Your task to perform on an android device: check storage Image 0: 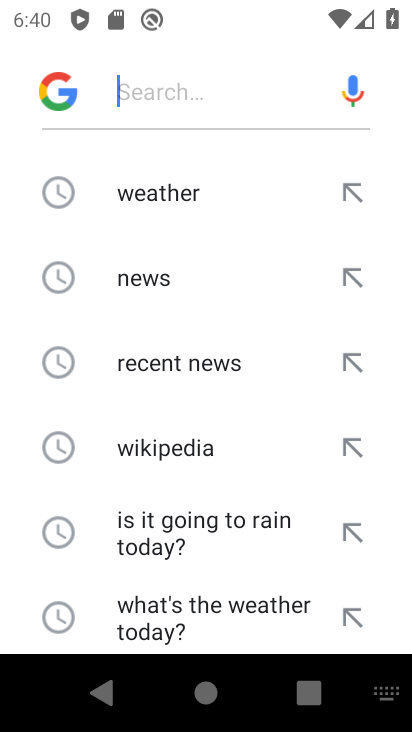
Step 0: press home button
Your task to perform on an android device: check storage Image 1: 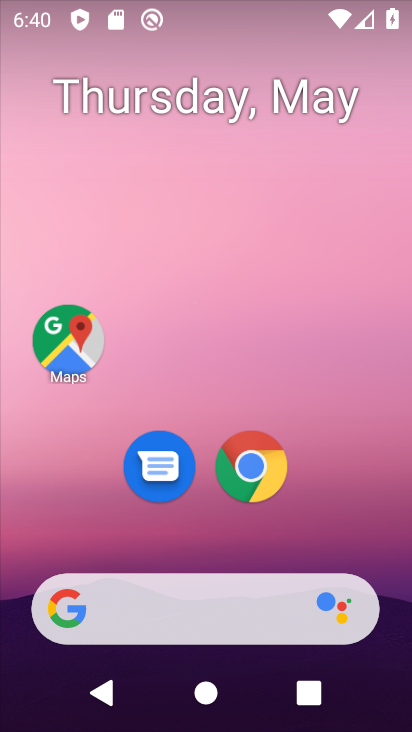
Step 1: drag from (334, 523) to (245, 80)
Your task to perform on an android device: check storage Image 2: 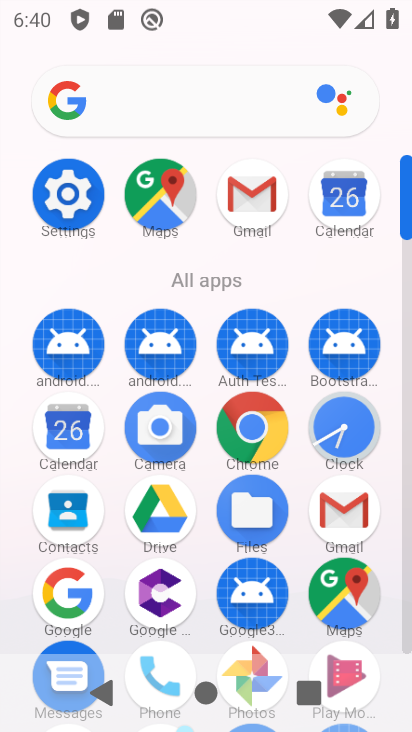
Step 2: click (66, 195)
Your task to perform on an android device: check storage Image 3: 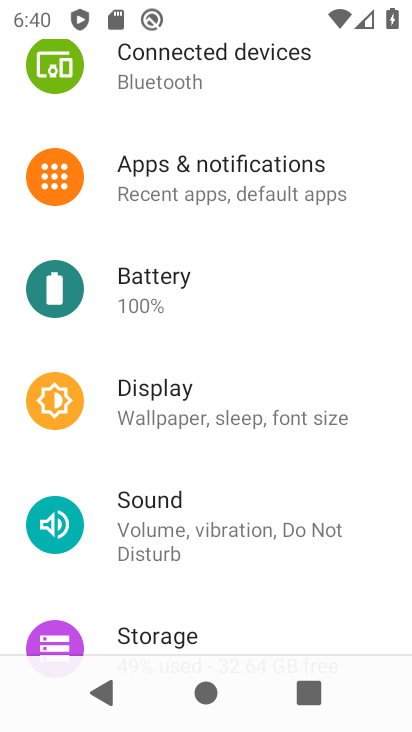
Step 3: drag from (242, 463) to (204, 238)
Your task to perform on an android device: check storage Image 4: 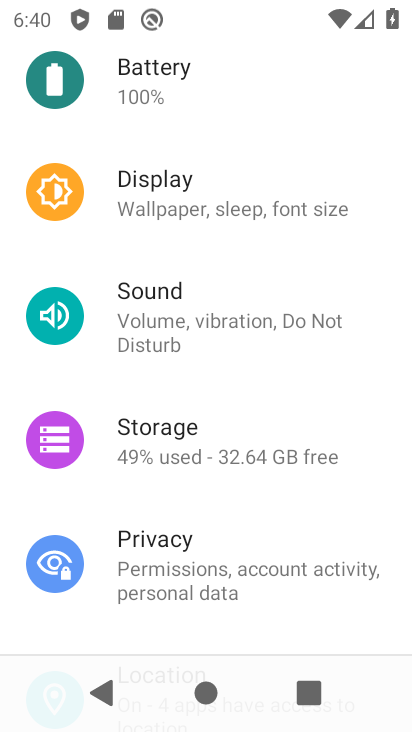
Step 4: click (158, 418)
Your task to perform on an android device: check storage Image 5: 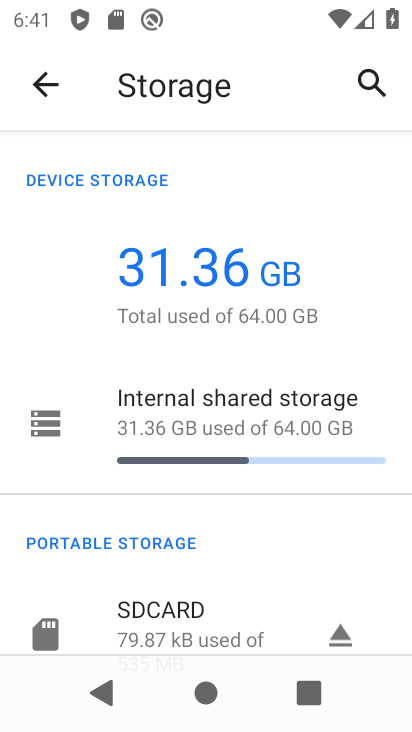
Step 5: task complete